Your task to perform on an android device: When is my next meeting? Image 0: 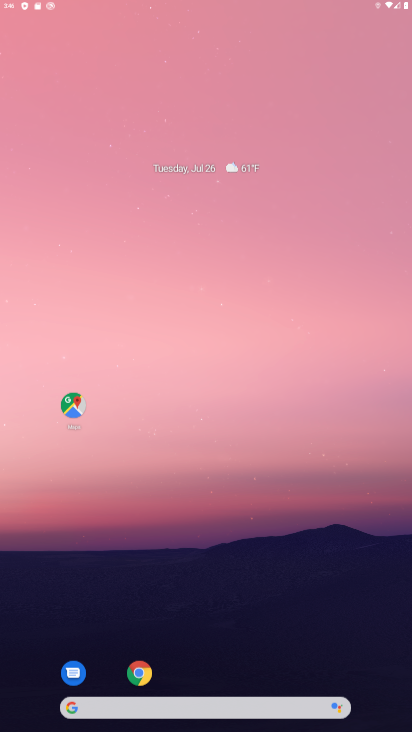
Step 0: press home button
Your task to perform on an android device: When is my next meeting? Image 1: 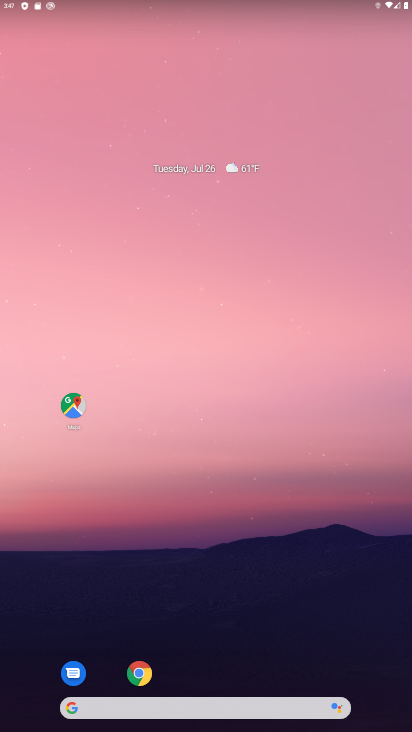
Step 1: drag from (219, 682) to (283, 51)
Your task to perform on an android device: When is my next meeting? Image 2: 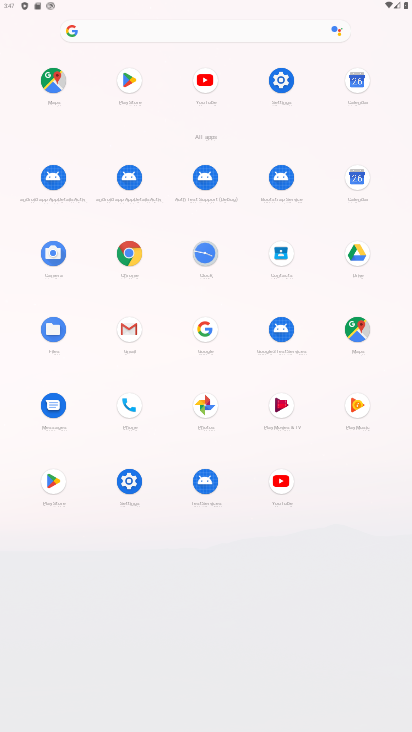
Step 2: click (357, 79)
Your task to perform on an android device: When is my next meeting? Image 3: 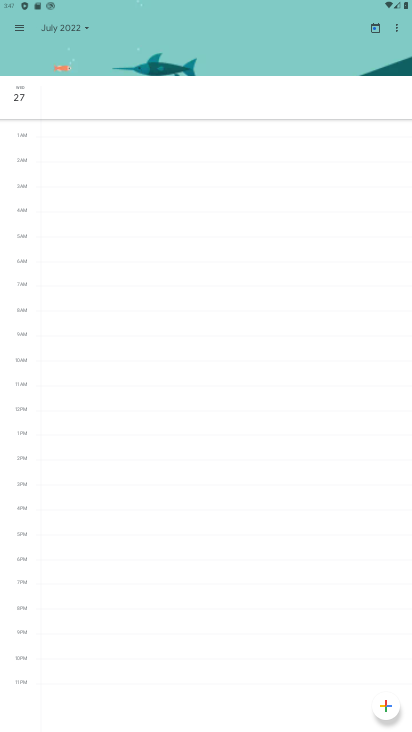
Step 3: click (25, 93)
Your task to perform on an android device: When is my next meeting? Image 4: 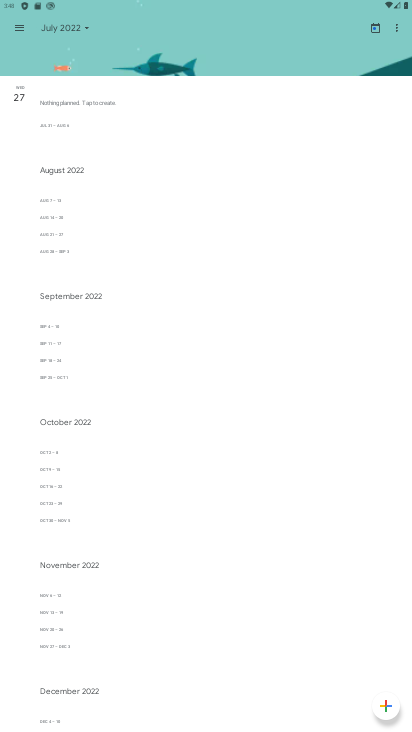
Step 4: task complete